Your task to perform on an android device: toggle location history Image 0: 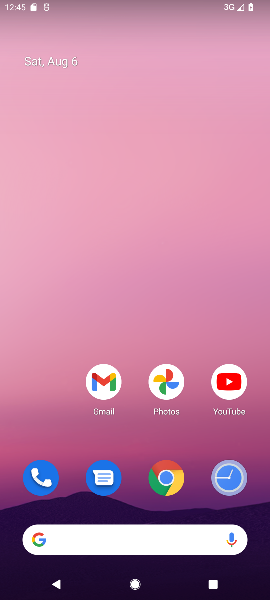
Step 0: drag from (174, 511) to (174, 334)
Your task to perform on an android device: toggle location history Image 1: 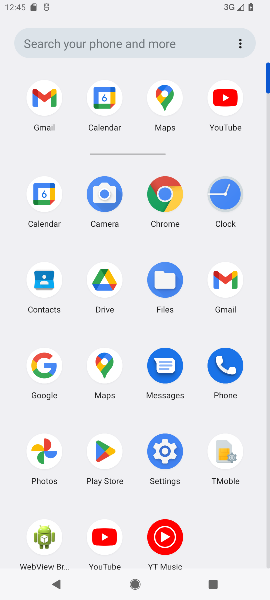
Step 1: click (169, 454)
Your task to perform on an android device: toggle location history Image 2: 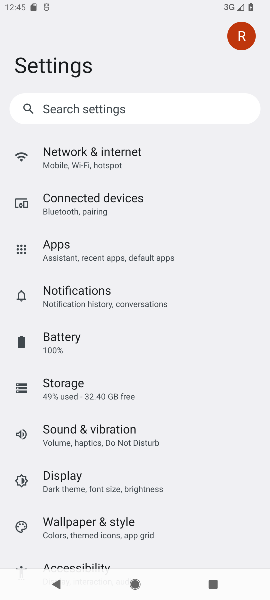
Step 2: drag from (83, 523) to (96, 318)
Your task to perform on an android device: toggle location history Image 3: 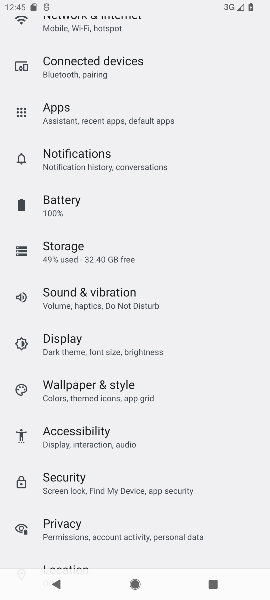
Step 3: drag from (77, 531) to (106, 326)
Your task to perform on an android device: toggle location history Image 4: 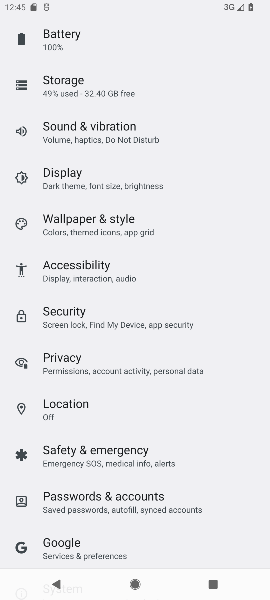
Step 4: click (62, 406)
Your task to perform on an android device: toggle location history Image 5: 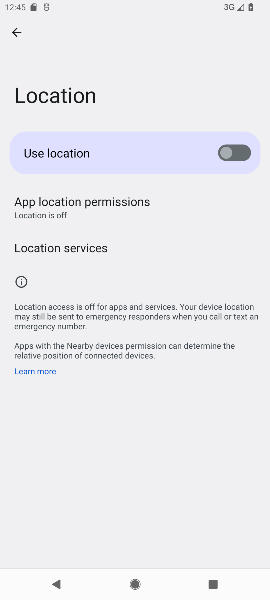
Step 5: click (70, 247)
Your task to perform on an android device: toggle location history Image 6: 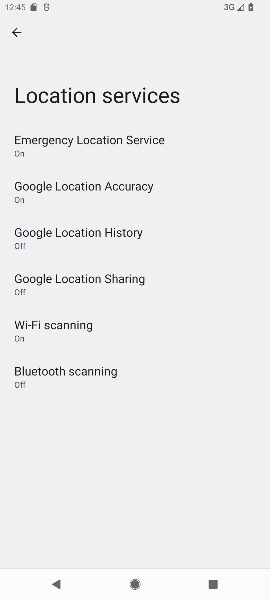
Step 6: click (90, 231)
Your task to perform on an android device: toggle location history Image 7: 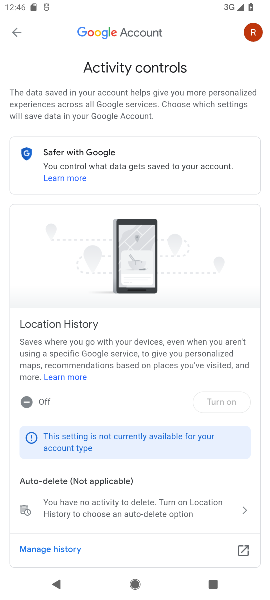
Step 7: click (122, 512)
Your task to perform on an android device: toggle location history Image 8: 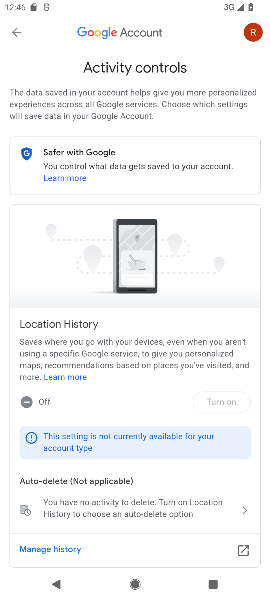
Step 8: task complete